Your task to perform on an android device: Open Yahoo.com Image 0: 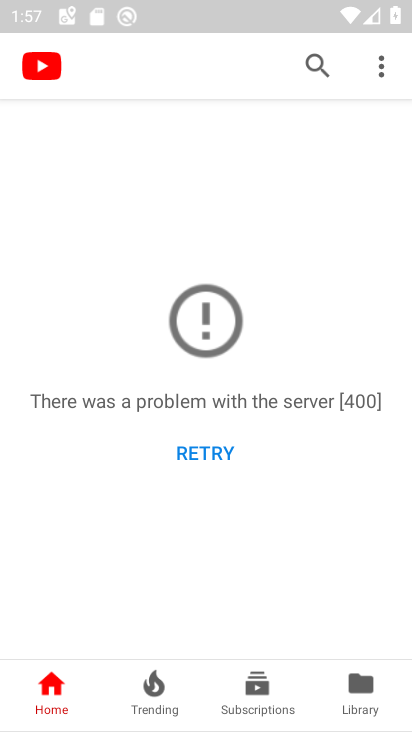
Step 0: press home button
Your task to perform on an android device: Open Yahoo.com Image 1: 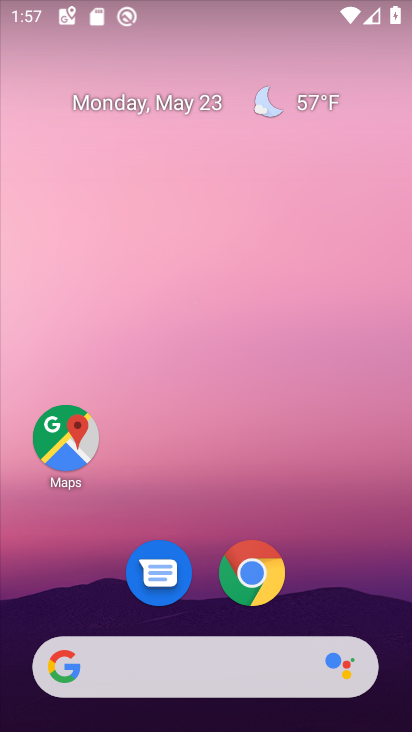
Step 1: click (246, 562)
Your task to perform on an android device: Open Yahoo.com Image 2: 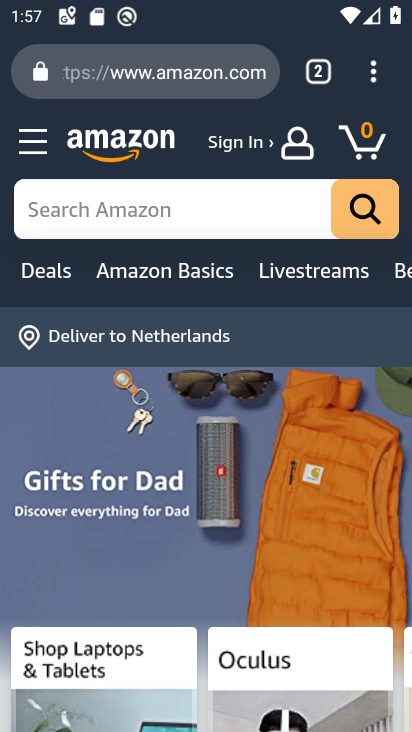
Step 2: click (321, 84)
Your task to perform on an android device: Open Yahoo.com Image 3: 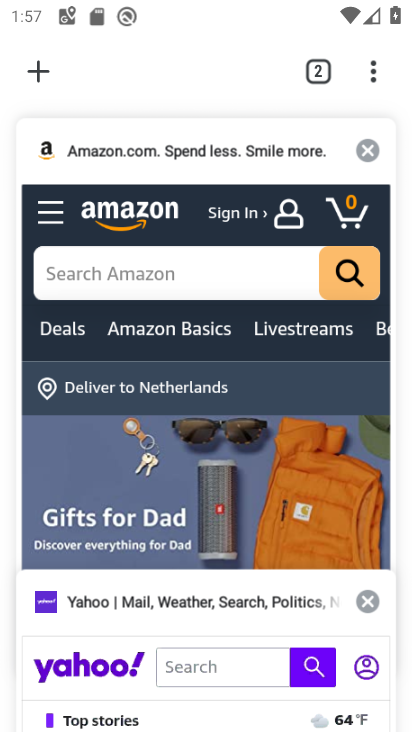
Step 3: click (121, 680)
Your task to perform on an android device: Open Yahoo.com Image 4: 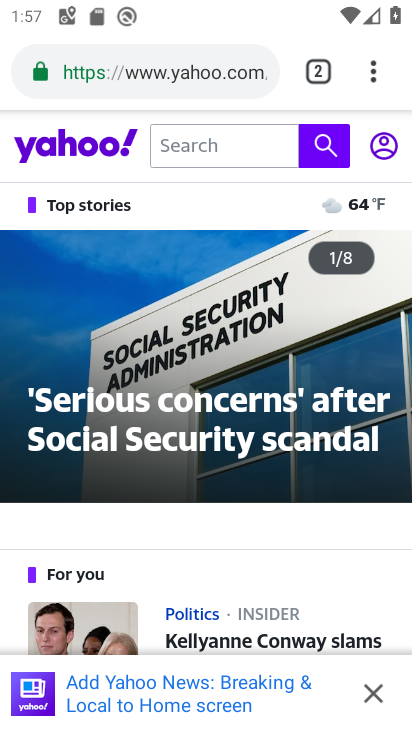
Step 4: task complete